Your task to perform on an android device: turn on data saver in the chrome app Image 0: 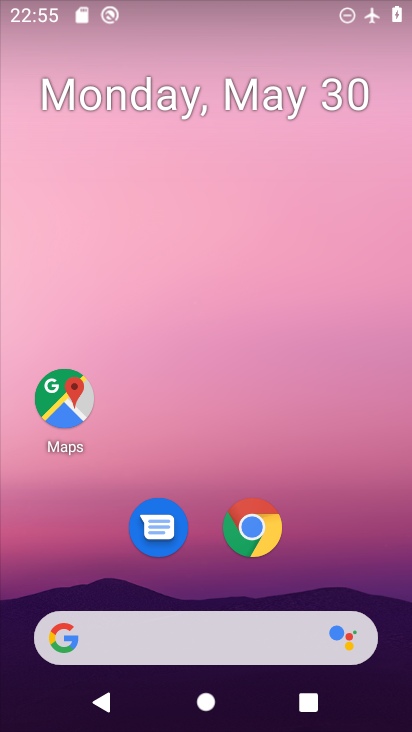
Step 0: drag from (320, 589) to (305, 207)
Your task to perform on an android device: turn on data saver in the chrome app Image 1: 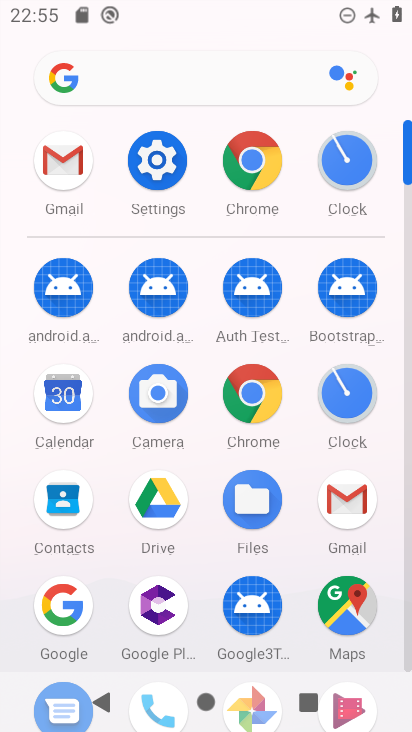
Step 1: click (254, 380)
Your task to perform on an android device: turn on data saver in the chrome app Image 2: 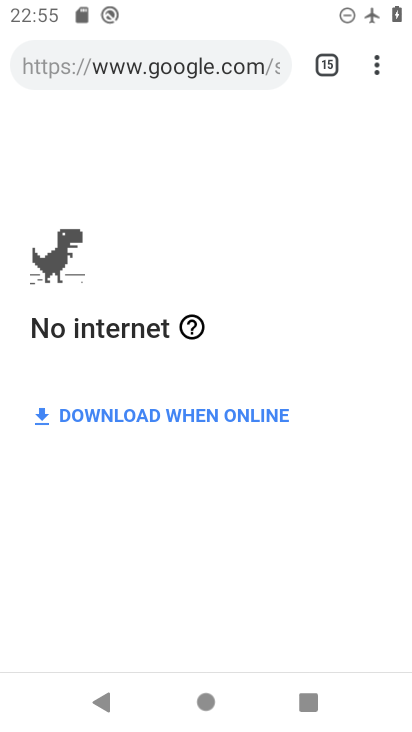
Step 2: click (361, 53)
Your task to perform on an android device: turn on data saver in the chrome app Image 3: 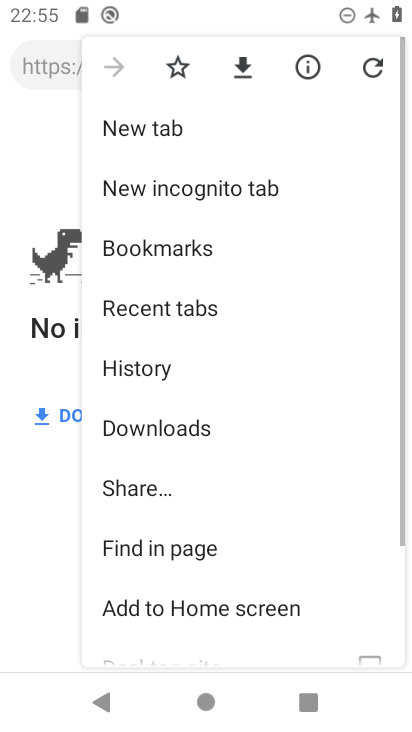
Step 3: drag from (217, 539) to (276, 256)
Your task to perform on an android device: turn on data saver in the chrome app Image 4: 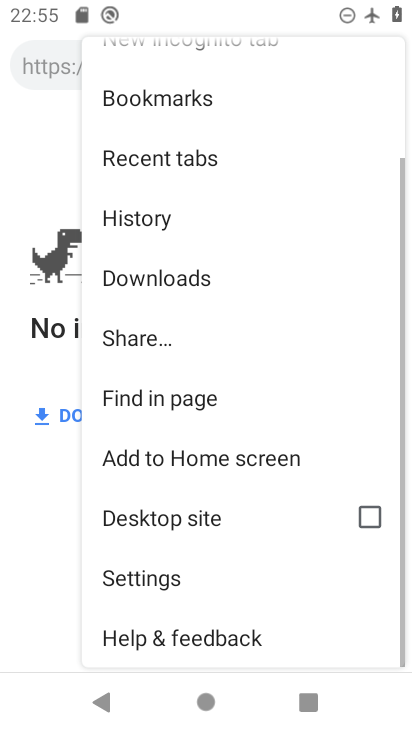
Step 4: click (179, 575)
Your task to perform on an android device: turn on data saver in the chrome app Image 5: 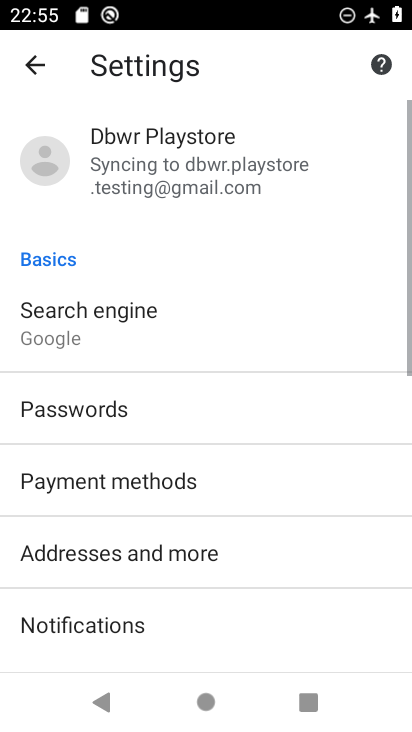
Step 5: drag from (231, 569) to (300, 195)
Your task to perform on an android device: turn on data saver in the chrome app Image 6: 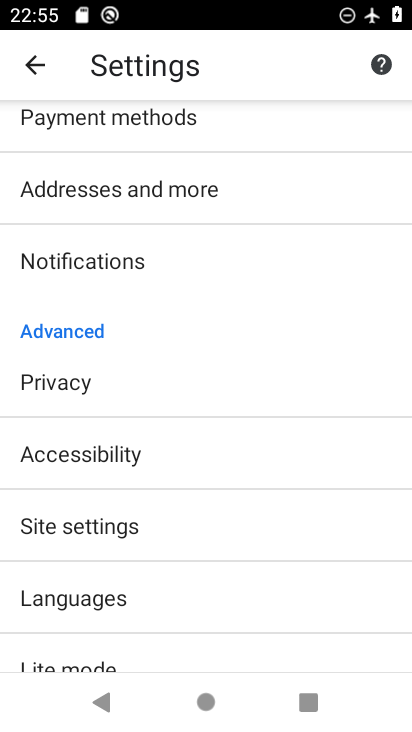
Step 6: drag from (192, 588) to (253, 218)
Your task to perform on an android device: turn on data saver in the chrome app Image 7: 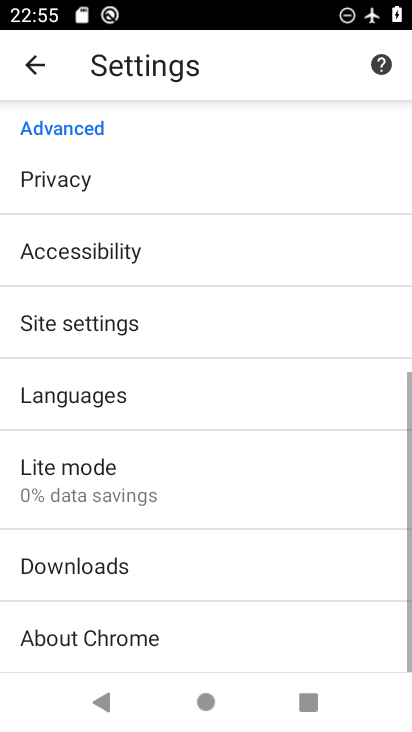
Step 7: drag from (178, 614) to (247, 252)
Your task to perform on an android device: turn on data saver in the chrome app Image 8: 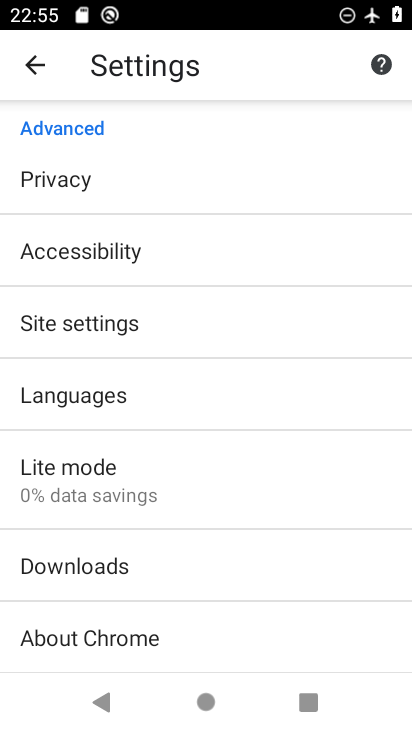
Step 8: click (115, 489)
Your task to perform on an android device: turn on data saver in the chrome app Image 9: 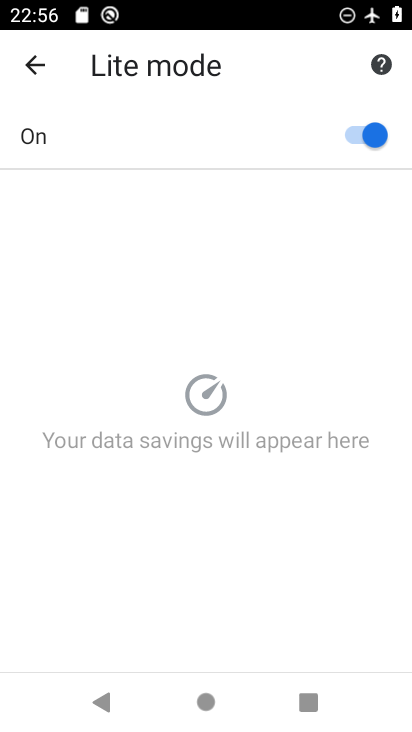
Step 9: task complete